Your task to perform on an android device: Search for sushi restaurants on Maps Image 0: 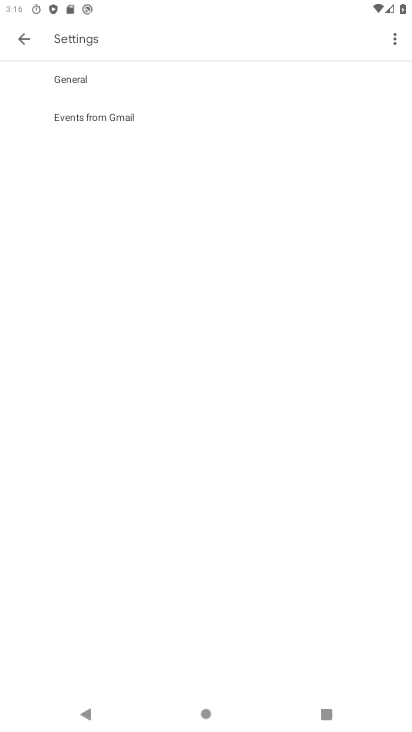
Step 0: press home button
Your task to perform on an android device: Search for sushi restaurants on Maps Image 1: 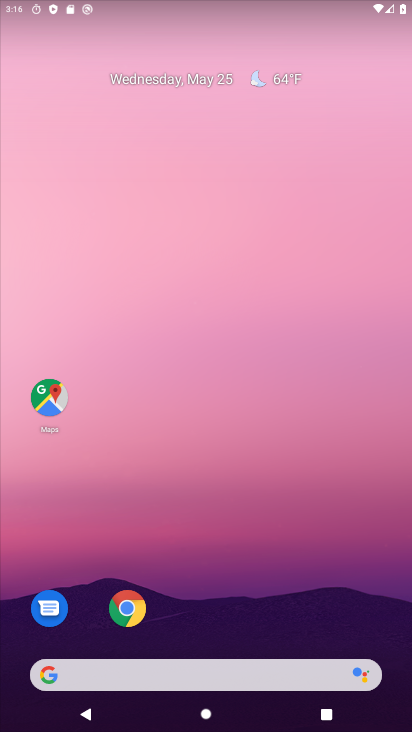
Step 1: click (52, 407)
Your task to perform on an android device: Search for sushi restaurants on Maps Image 2: 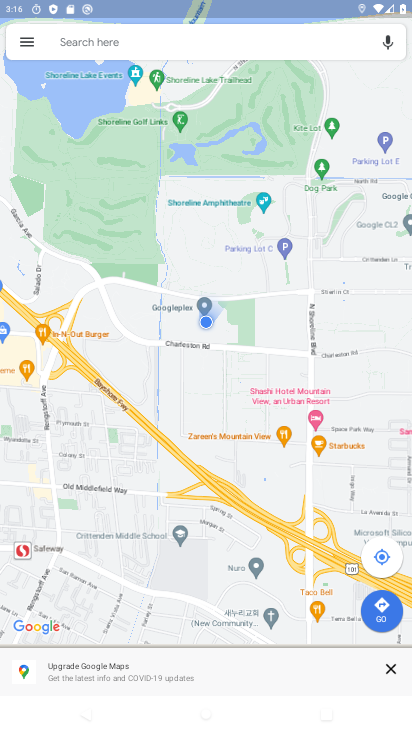
Step 2: click (201, 35)
Your task to perform on an android device: Search for sushi restaurants on Maps Image 3: 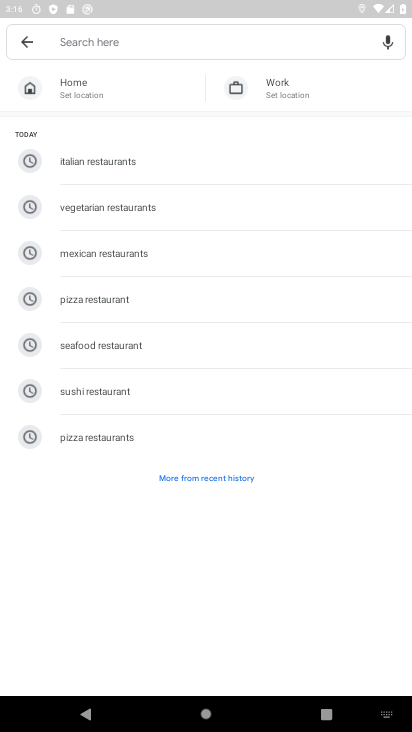
Step 3: type "sushi restaurants"
Your task to perform on an android device: Search for sushi restaurants on Maps Image 4: 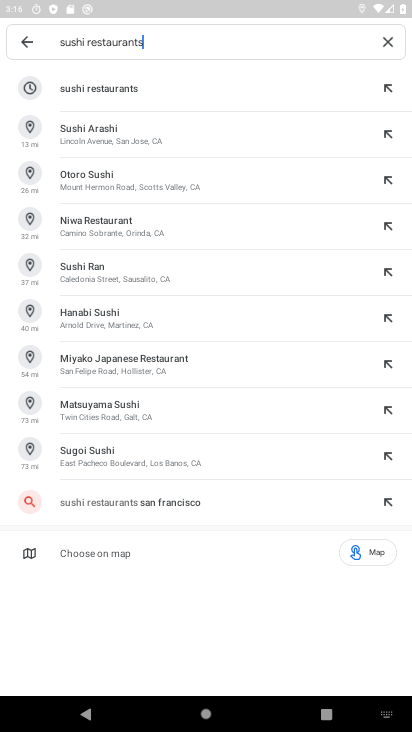
Step 4: click (158, 82)
Your task to perform on an android device: Search for sushi restaurants on Maps Image 5: 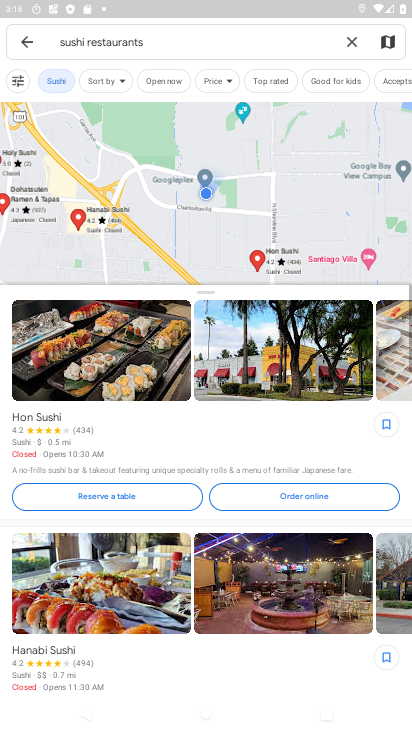
Step 5: task complete